Your task to perform on an android device: change the clock display to digital Image 0: 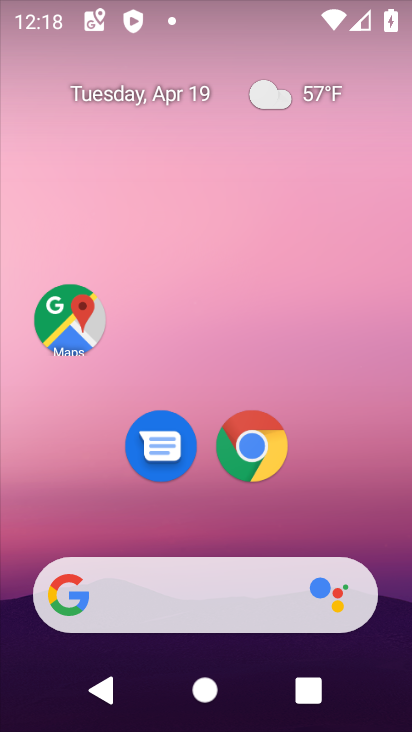
Step 0: drag from (357, 451) to (369, 93)
Your task to perform on an android device: change the clock display to digital Image 1: 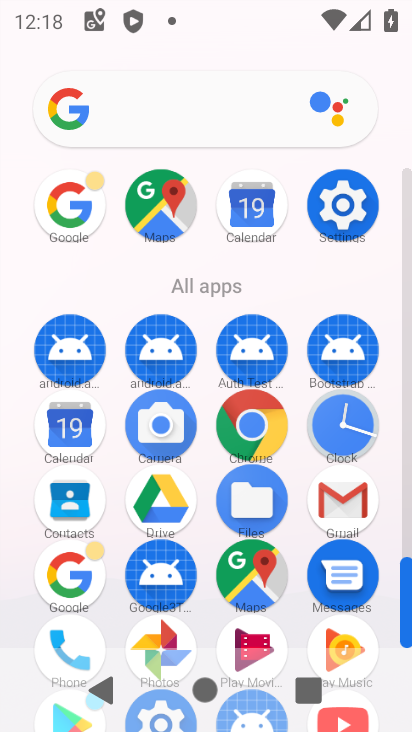
Step 1: click (335, 424)
Your task to perform on an android device: change the clock display to digital Image 2: 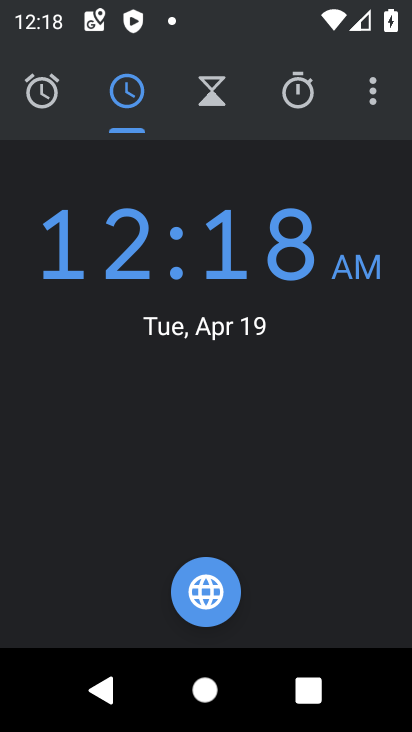
Step 2: task complete